Your task to perform on an android device: toggle notification dots Image 0: 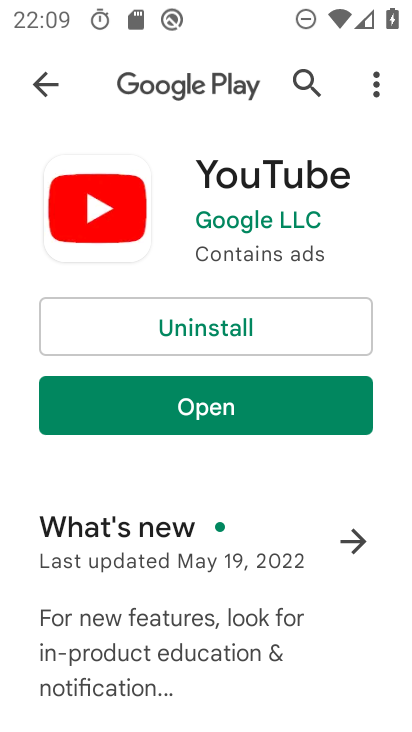
Step 0: press home button
Your task to perform on an android device: toggle notification dots Image 1: 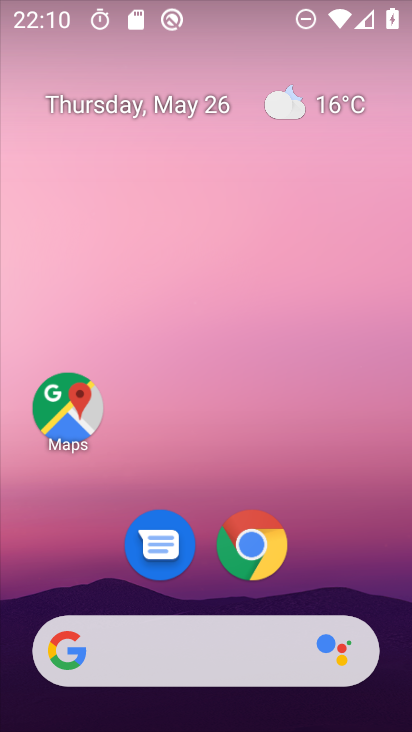
Step 1: drag from (338, 552) to (316, 72)
Your task to perform on an android device: toggle notification dots Image 2: 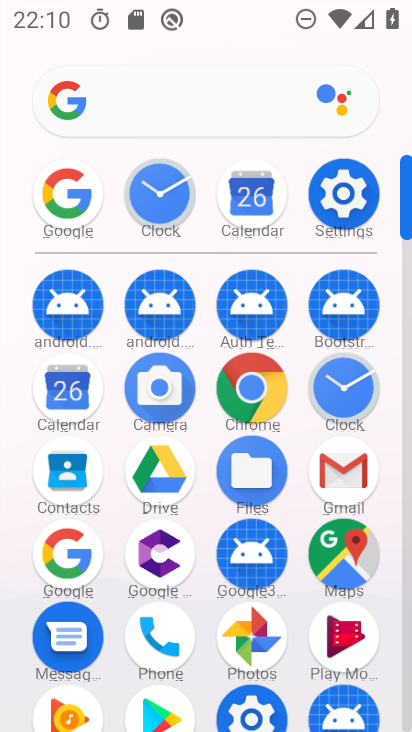
Step 2: click (342, 189)
Your task to perform on an android device: toggle notification dots Image 3: 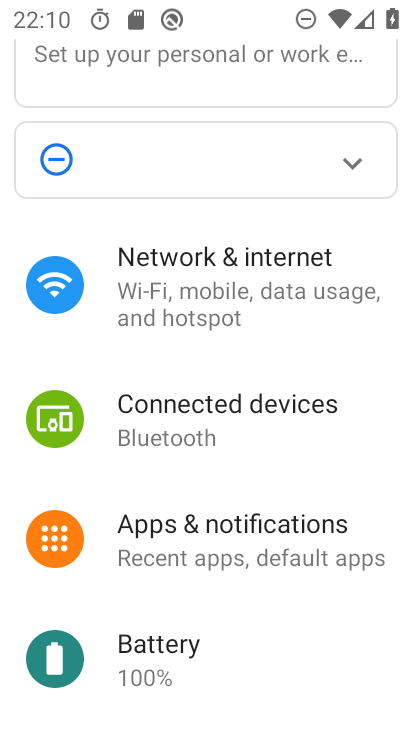
Step 3: click (214, 538)
Your task to perform on an android device: toggle notification dots Image 4: 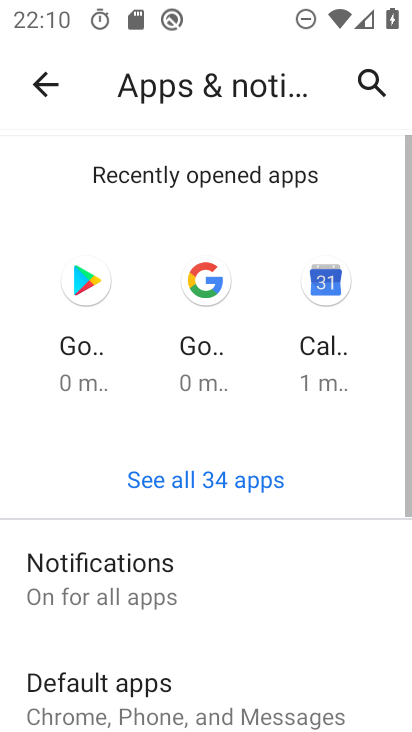
Step 4: click (112, 571)
Your task to perform on an android device: toggle notification dots Image 5: 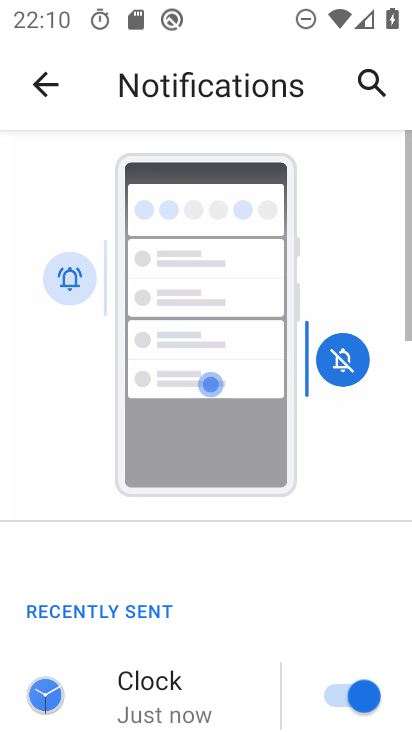
Step 5: drag from (180, 623) to (216, 0)
Your task to perform on an android device: toggle notification dots Image 6: 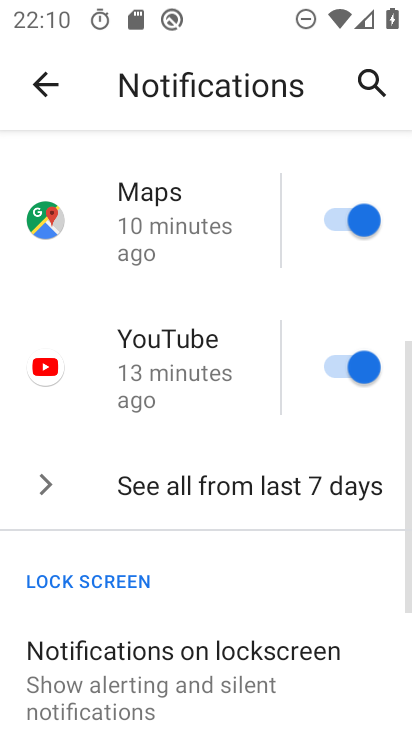
Step 6: drag from (254, 666) to (253, 222)
Your task to perform on an android device: toggle notification dots Image 7: 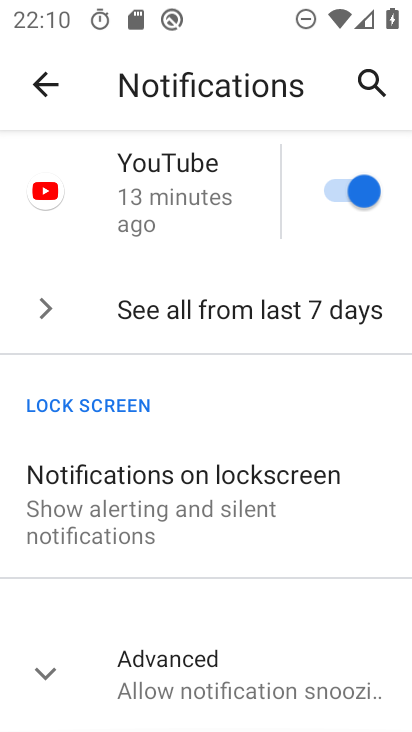
Step 7: click (190, 665)
Your task to perform on an android device: toggle notification dots Image 8: 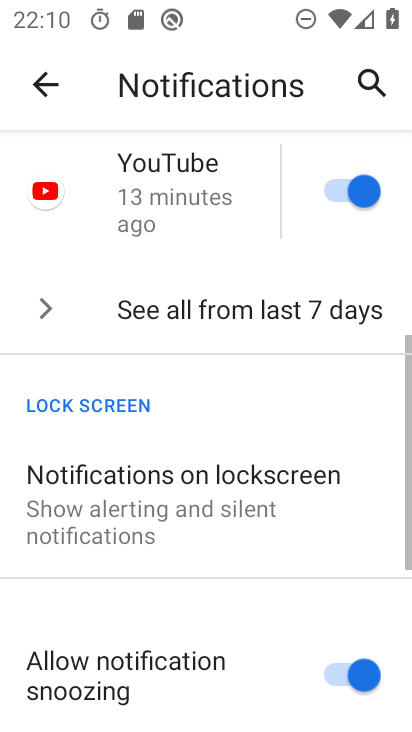
Step 8: task complete